Your task to perform on an android device: Show me popular videos on Youtube Image 0: 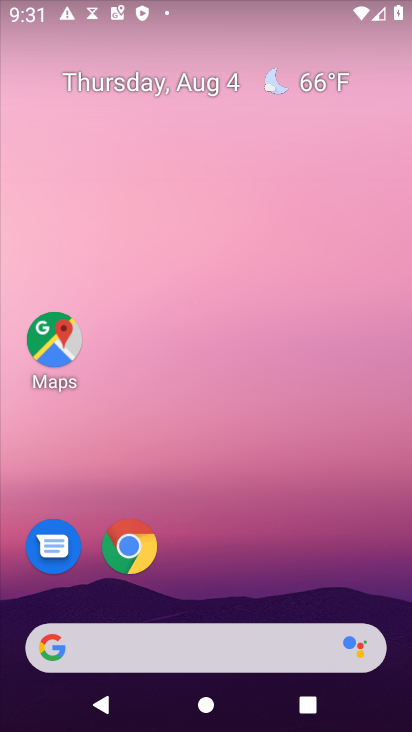
Step 0: drag from (232, 609) to (274, 83)
Your task to perform on an android device: Show me popular videos on Youtube Image 1: 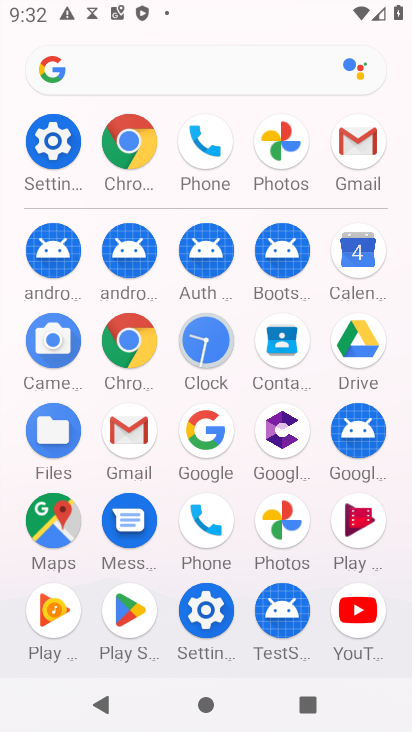
Step 1: click (346, 611)
Your task to perform on an android device: Show me popular videos on Youtube Image 2: 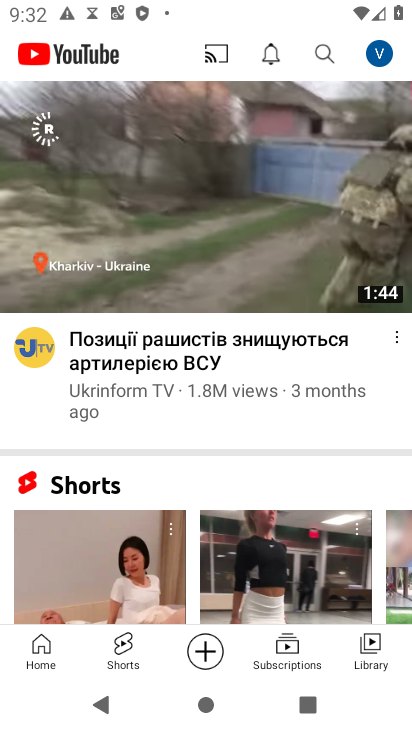
Step 2: click (38, 654)
Your task to perform on an android device: Show me popular videos on Youtube Image 3: 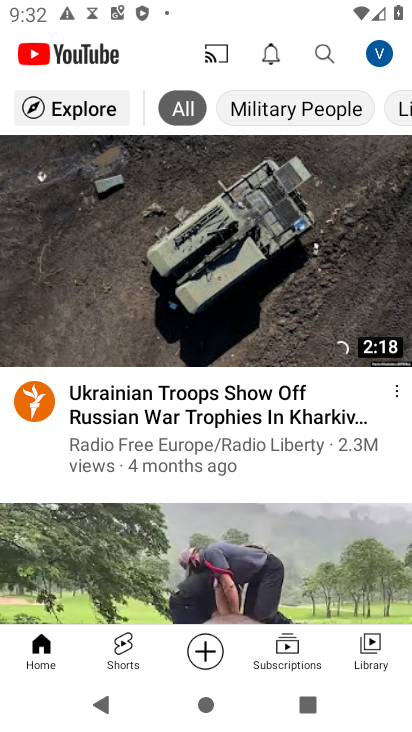
Step 3: click (79, 104)
Your task to perform on an android device: Show me popular videos on Youtube Image 4: 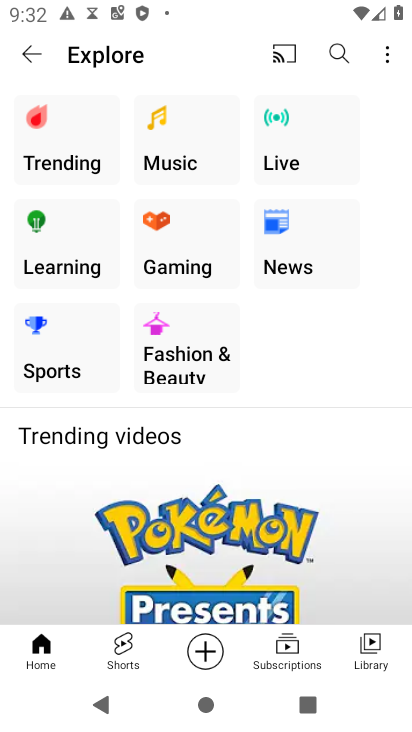
Step 4: click (49, 152)
Your task to perform on an android device: Show me popular videos on Youtube Image 5: 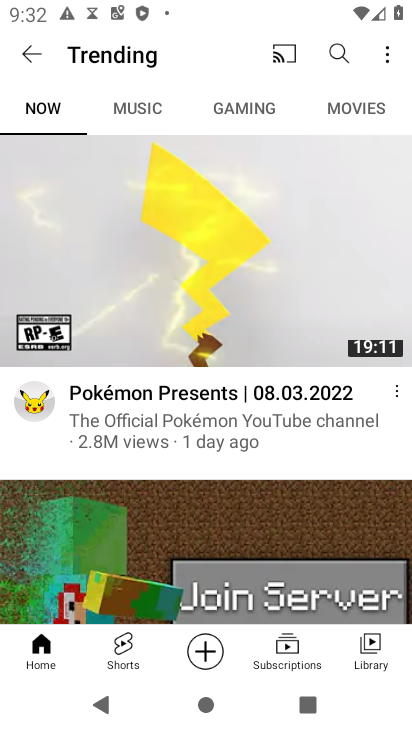
Step 5: task complete